Your task to perform on an android device: find snoozed emails in the gmail app Image 0: 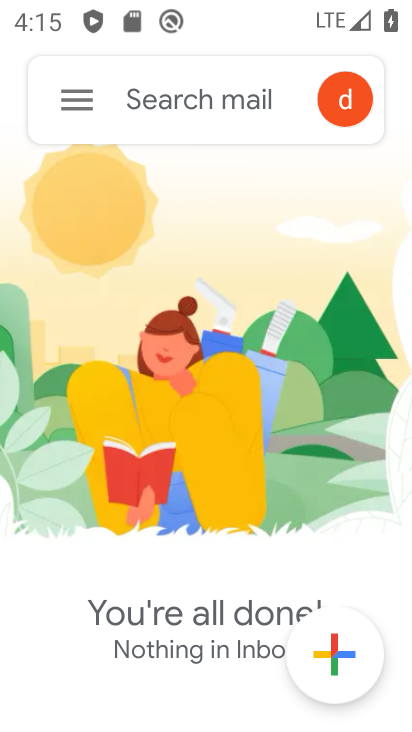
Step 0: click (69, 94)
Your task to perform on an android device: find snoozed emails in the gmail app Image 1: 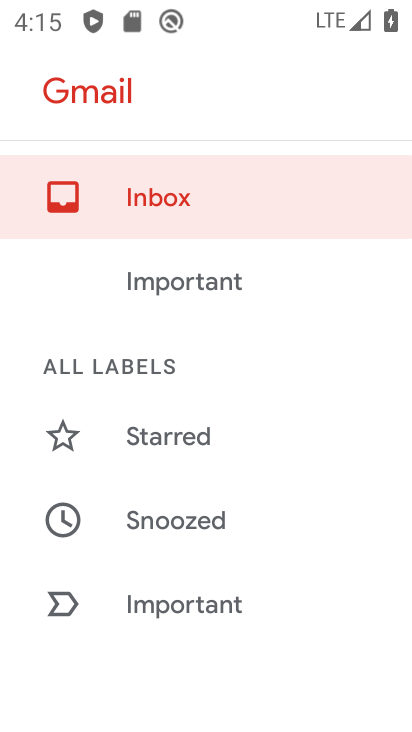
Step 1: click (102, 515)
Your task to perform on an android device: find snoozed emails in the gmail app Image 2: 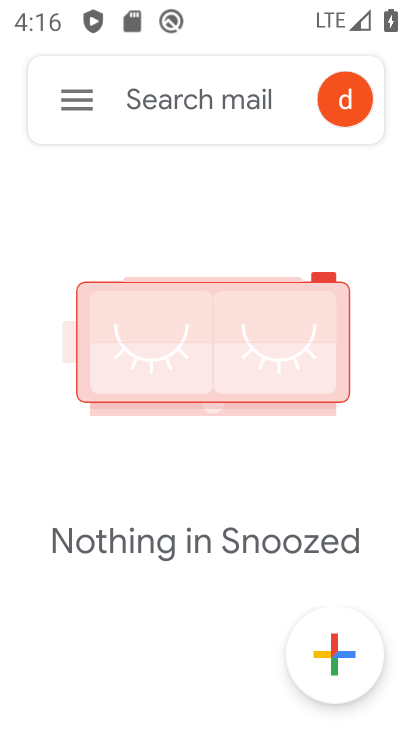
Step 2: task complete